Your task to perform on an android device: uninstall "Expedia: Hotels, Flights & Car" Image 0: 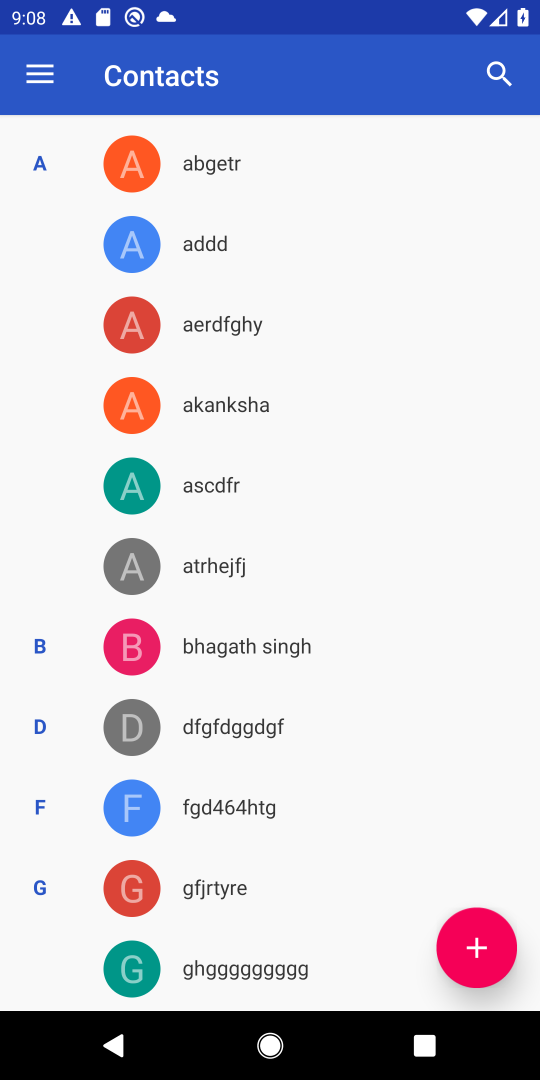
Step 0: press home button
Your task to perform on an android device: uninstall "Expedia: Hotels, Flights & Car" Image 1: 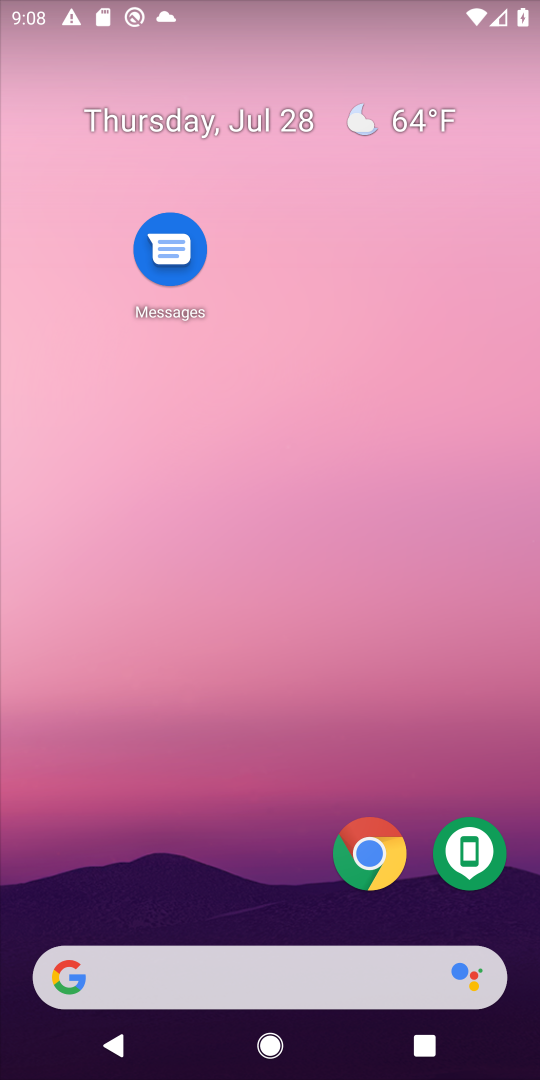
Step 1: drag from (267, 883) to (297, 23)
Your task to perform on an android device: uninstall "Expedia: Hotels, Flights & Car" Image 2: 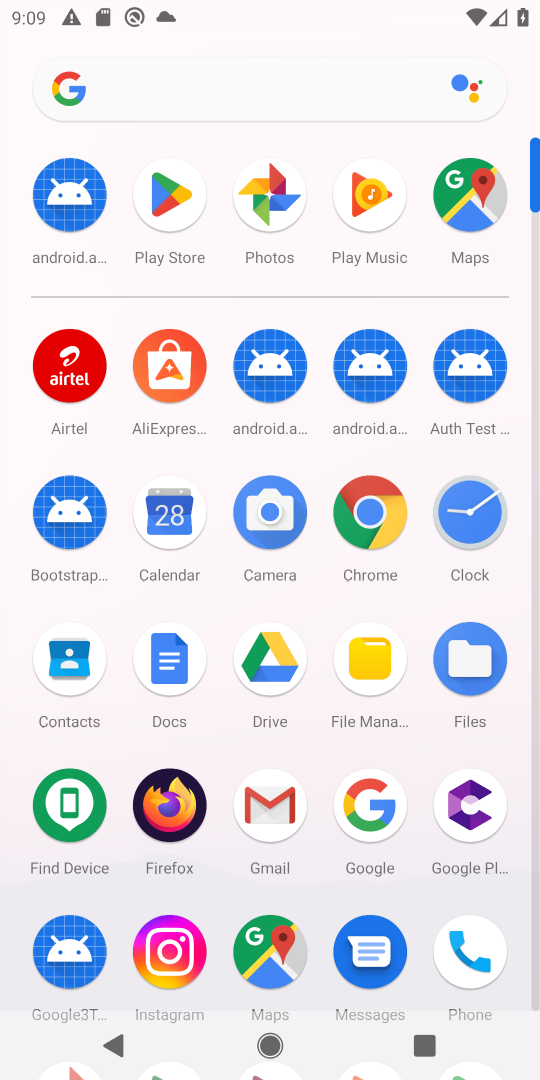
Step 2: click (189, 260)
Your task to perform on an android device: uninstall "Expedia: Hotels, Flights & Car" Image 3: 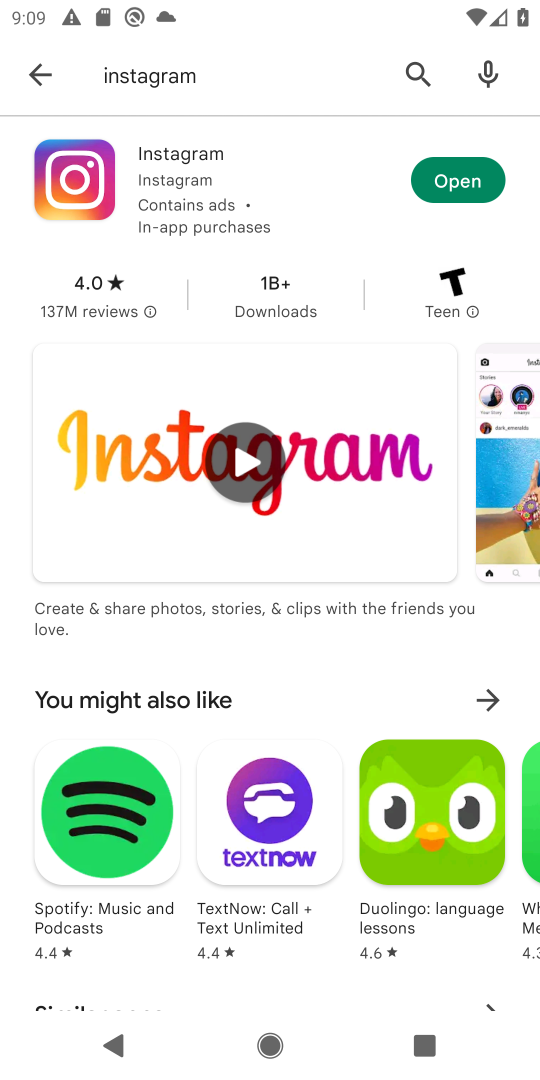
Step 3: click (43, 83)
Your task to perform on an android device: uninstall "Expedia: Hotels, Flights & Car" Image 4: 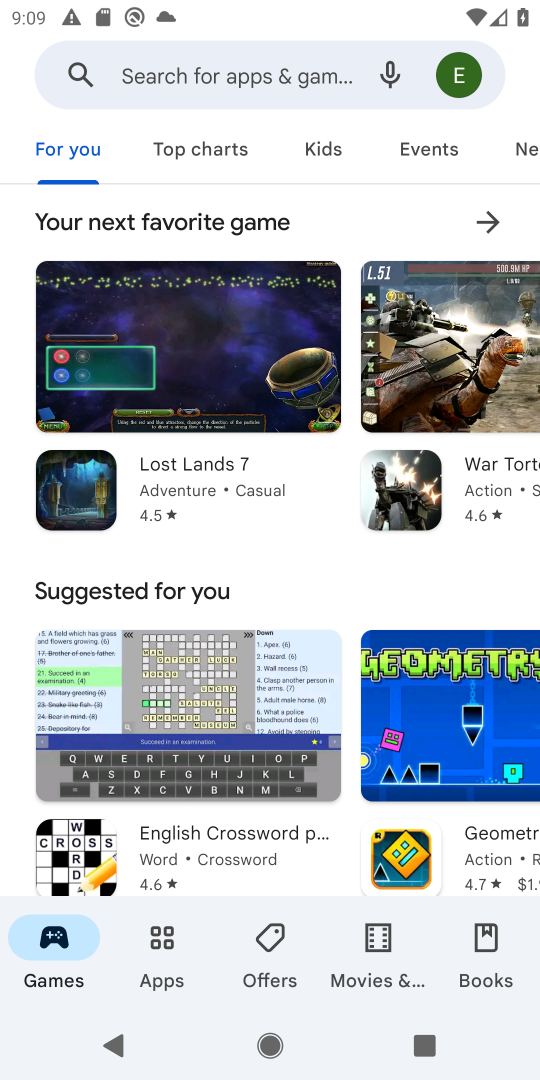
Step 4: click (258, 69)
Your task to perform on an android device: uninstall "Expedia: Hotels, Flights & Car" Image 5: 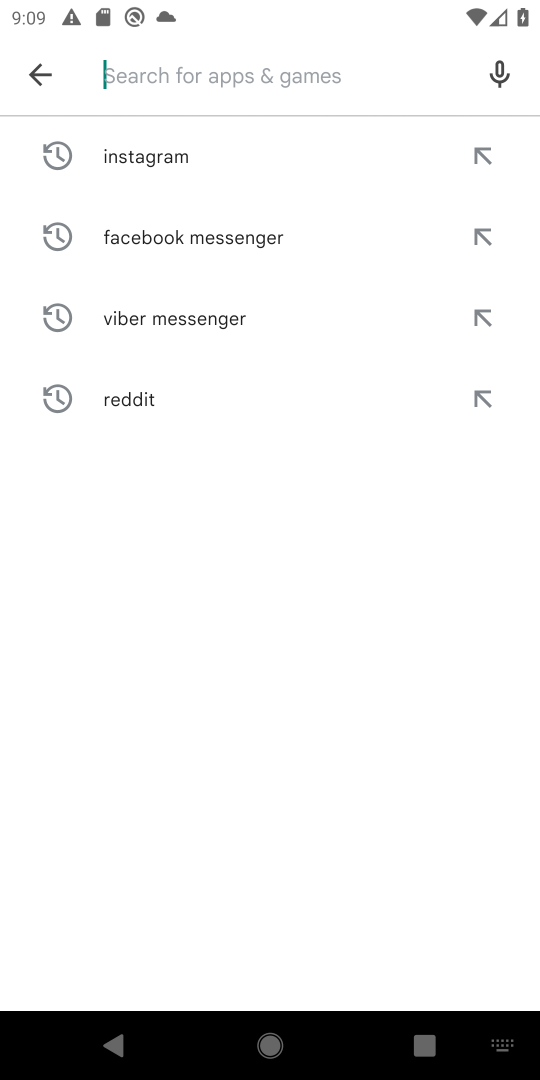
Step 5: type "Expedia: Hotels, Flights & Car"
Your task to perform on an android device: uninstall "Expedia: Hotels, Flights & Car" Image 6: 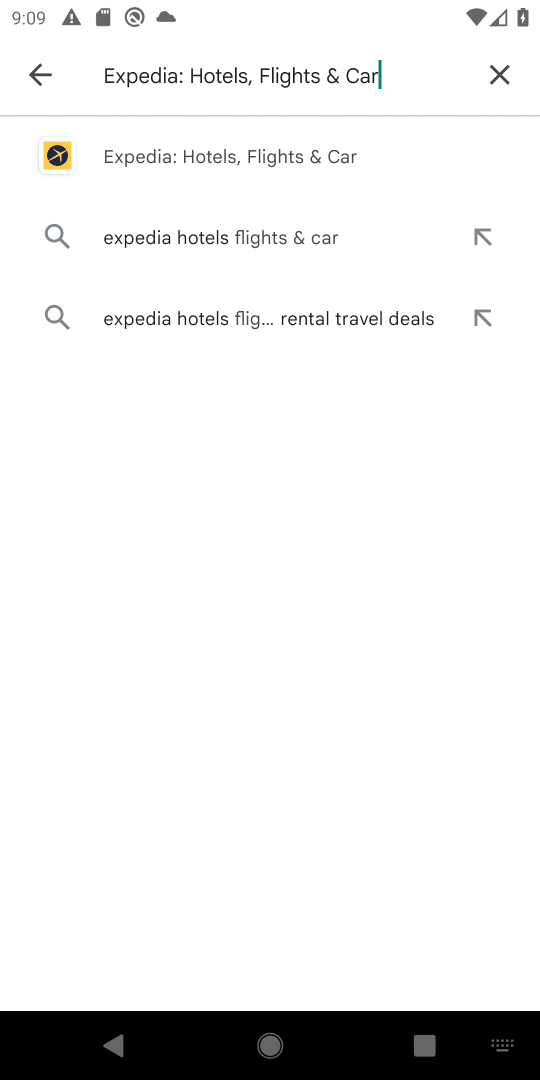
Step 6: click (276, 158)
Your task to perform on an android device: uninstall "Expedia: Hotels, Flights & Car" Image 7: 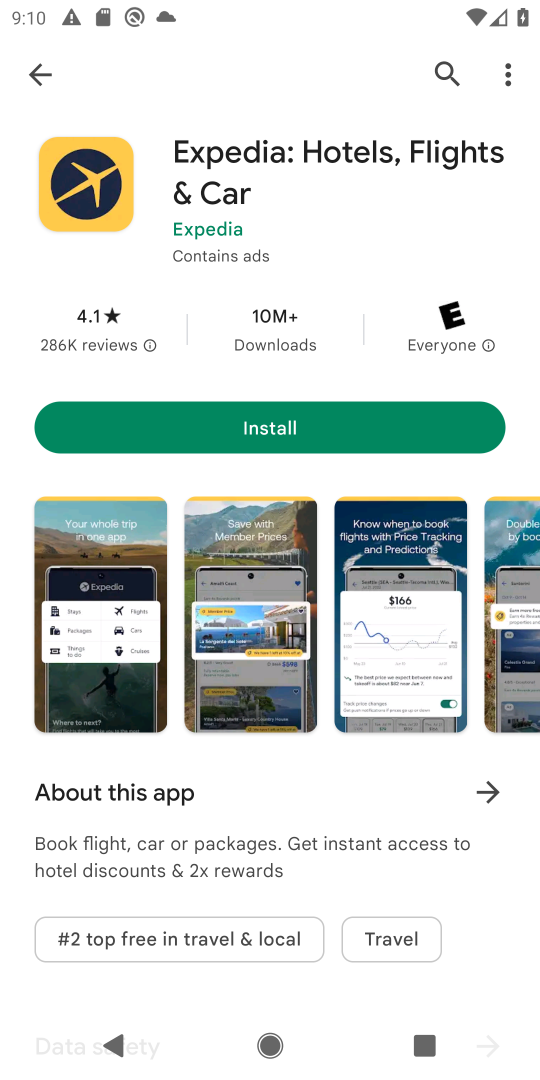
Step 7: task complete